Your task to perform on an android device: Go to privacy settings Image 0: 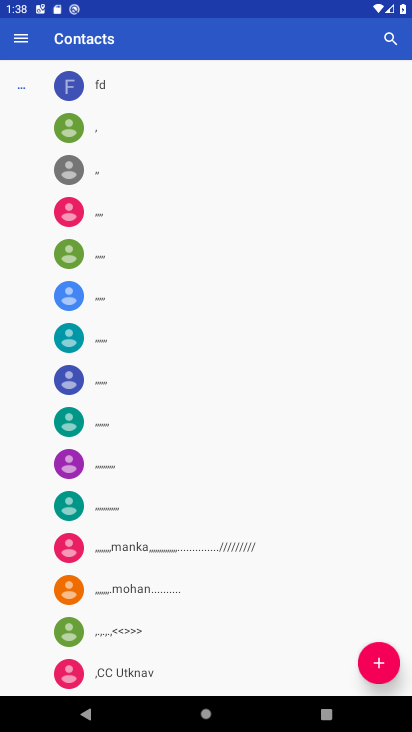
Step 0: press home button
Your task to perform on an android device: Go to privacy settings Image 1: 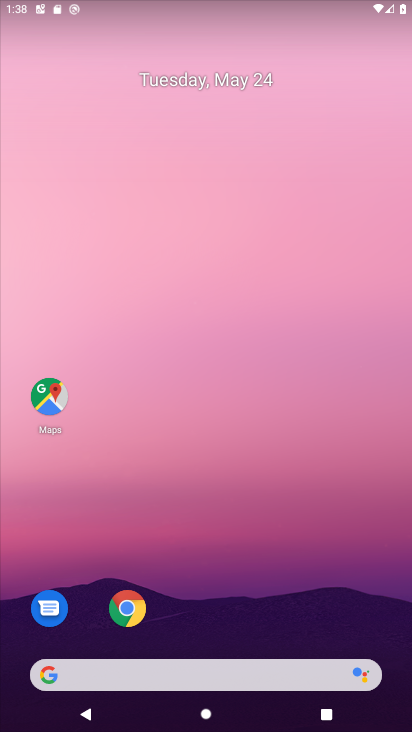
Step 1: drag from (313, 628) to (279, 179)
Your task to perform on an android device: Go to privacy settings Image 2: 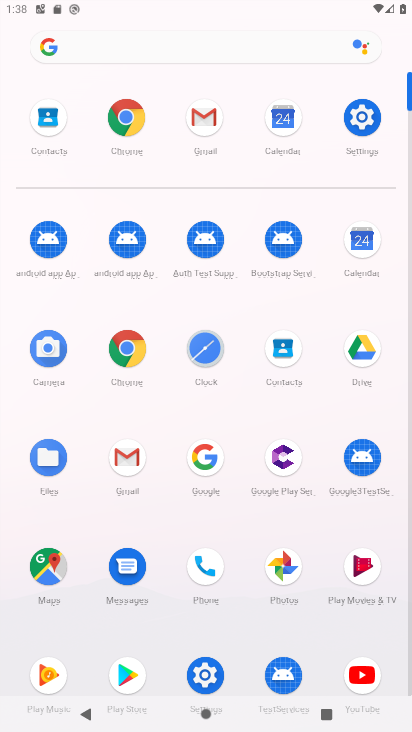
Step 2: click (381, 142)
Your task to perform on an android device: Go to privacy settings Image 3: 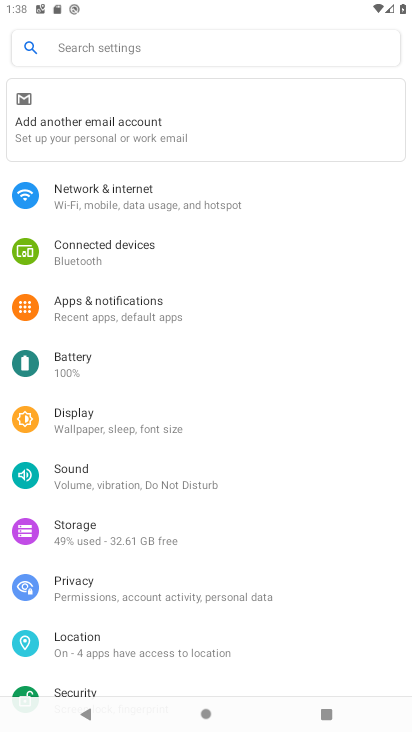
Step 3: click (236, 219)
Your task to perform on an android device: Go to privacy settings Image 4: 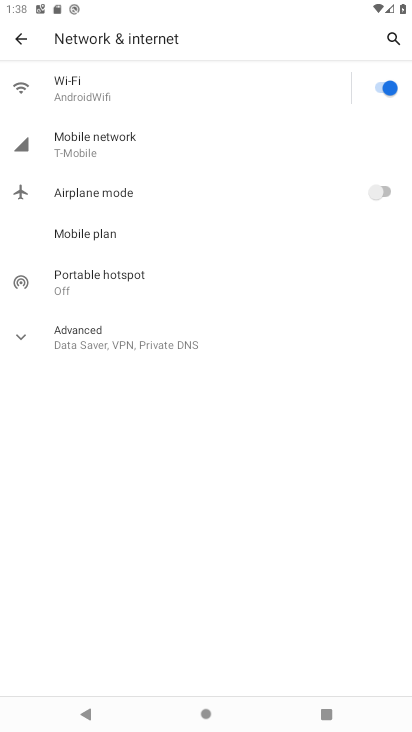
Step 4: click (24, 45)
Your task to perform on an android device: Go to privacy settings Image 5: 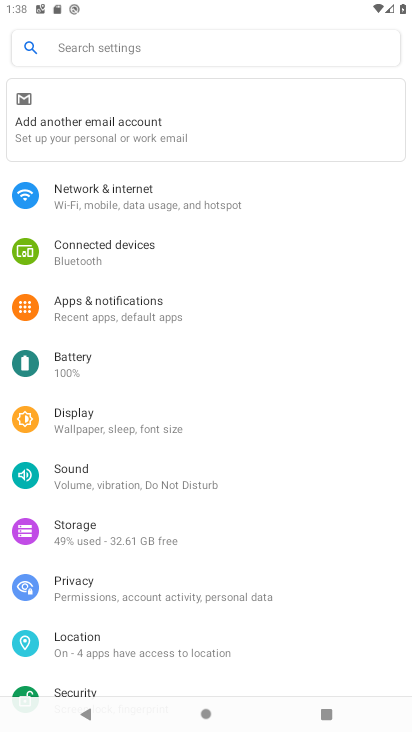
Step 5: click (169, 580)
Your task to perform on an android device: Go to privacy settings Image 6: 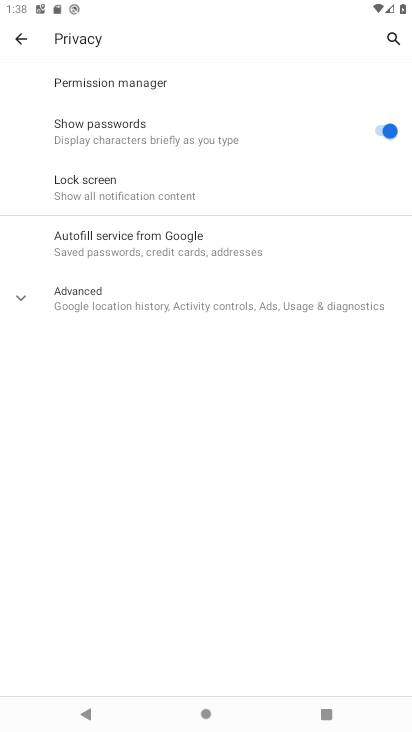
Step 6: task complete